Your task to perform on an android device: Search for vegetarian restaurants on Maps Image 0: 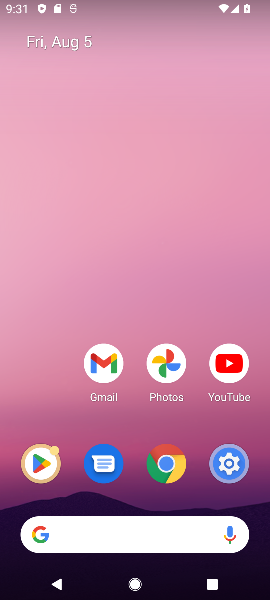
Step 0: drag from (143, 543) to (132, 353)
Your task to perform on an android device: Search for vegetarian restaurants on Maps Image 1: 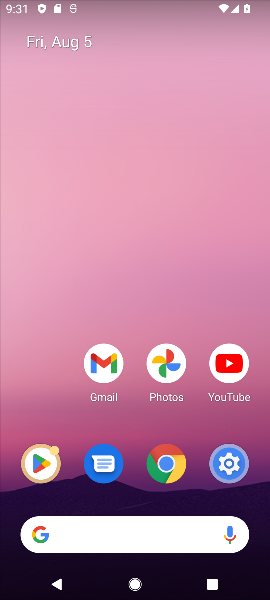
Step 1: drag from (161, 482) to (126, 212)
Your task to perform on an android device: Search for vegetarian restaurants on Maps Image 2: 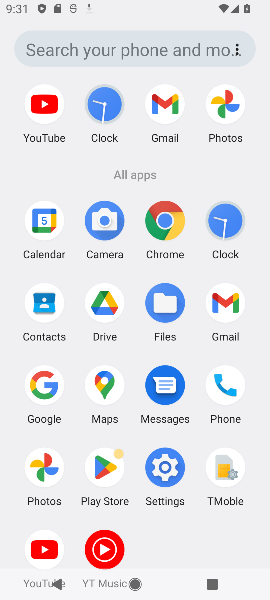
Step 2: click (101, 394)
Your task to perform on an android device: Search for vegetarian restaurants on Maps Image 3: 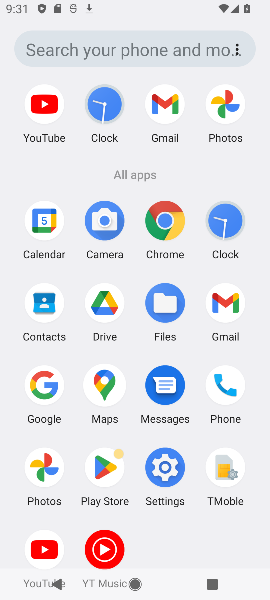
Step 3: click (101, 394)
Your task to perform on an android device: Search for vegetarian restaurants on Maps Image 4: 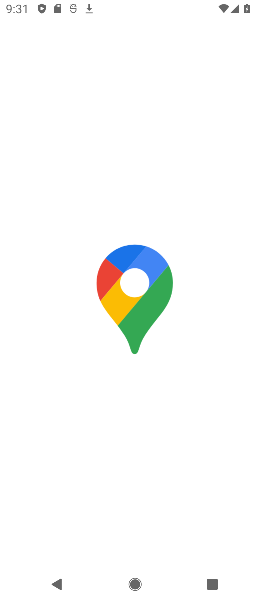
Step 4: click (101, 389)
Your task to perform on an android device: Search for vegetarian restaurants on Maps Image 5: 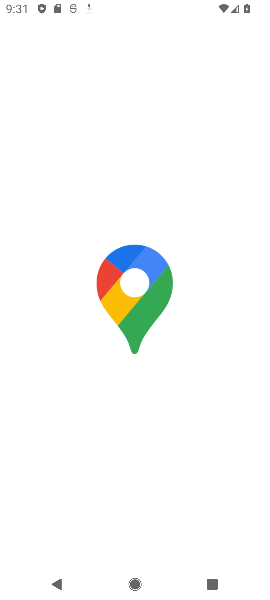
Step 5: click (140, 287)
Your task to perform on an android device: Search for vegetarian restaurants on Maps Image 6: 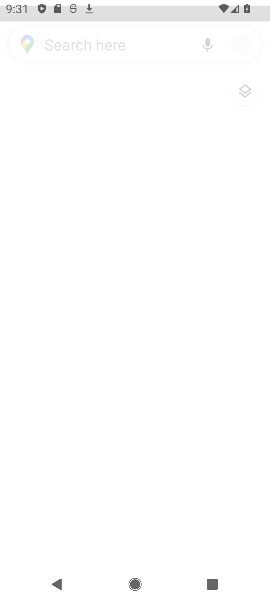
Step 6: click (140, 289)
Your task to perform on an android device: Search for vegetarian restaurants on Maps Image 7: 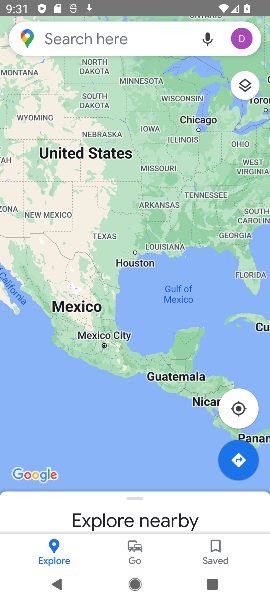
Step 7: click (50, 32)
Your task to perform on an android device: Search for vegetarian restaurants on Maps Image 8: 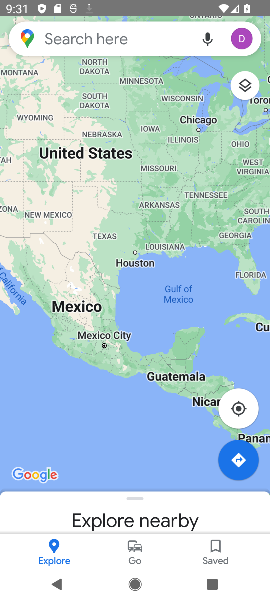
Step 8: click (53, 36)
Your task to perform on an android device: Search for vegetarian restaurants on Maps Image 9: 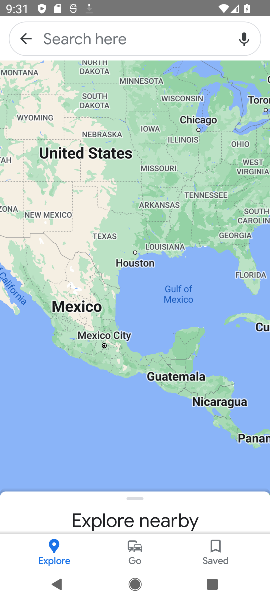
Step 9: click (54, 39)
Your task to perform on an android device: Search for vegetarian restaurants on Maps Image 10: 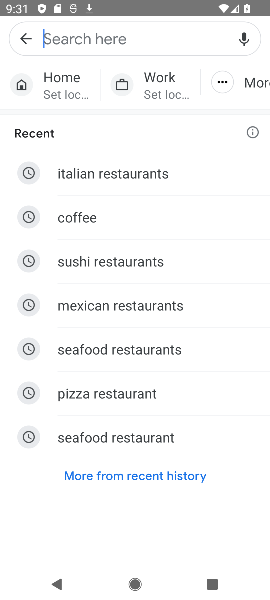
Step 10: click (56, 41)
Your task to perform on an android device: Search for vegetarian restaurants on Maps Image 11: 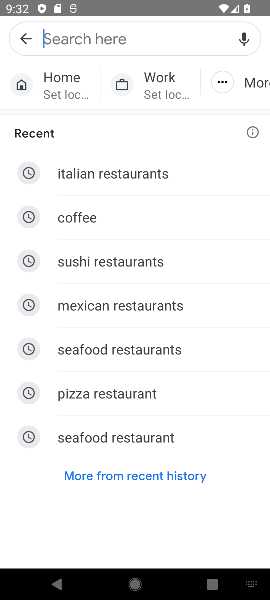
Step 11: type "vegetarian restaurants"
Your task to perform on an android device: Search for vegetarian restaurants on Maps Image 12: 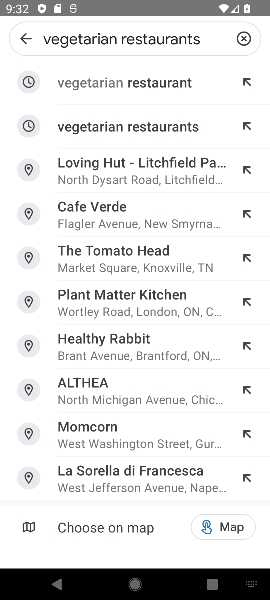
Step 12: click (125, 91)
Your task to perform on an android device: Search for vegetarian restaurants on Maps Image 13: 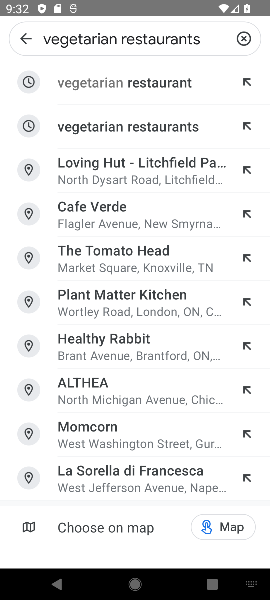
Step 13: click (141, 88)
Your task to perform on an android device: Search for vegetarian restaurants on Maps Image 14: 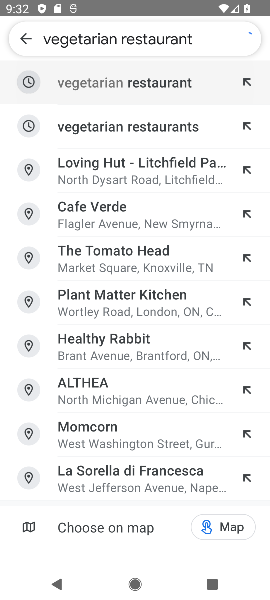
Step 14: click (145, 86)
Your task to perform on an android device: Search for vegetarian restaurants on Maps Image 15: 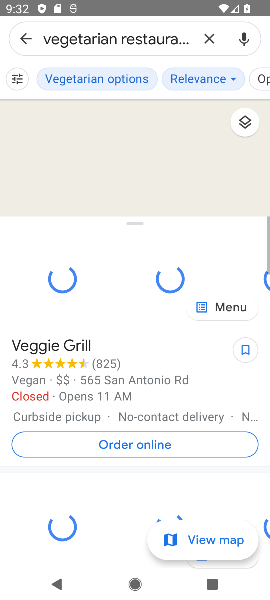
Step 15: task complete